Your task to perform on an android device: toggle airplane mode Image 0: 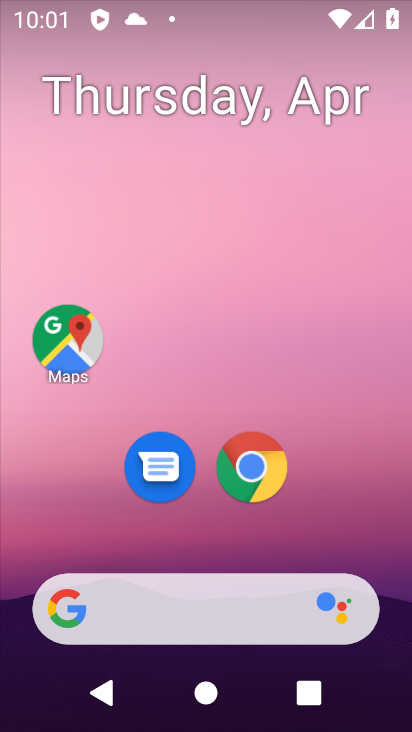
Step 0: drag from (332, 478) to (300, 124)
Your task to perform on an android device: toggle airplane mode Image 1: 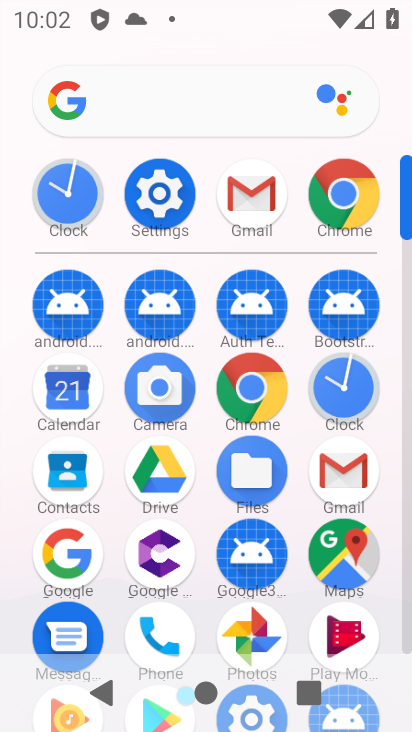
Step 1: click (152, 192)
Your task to perform on an android device: toggle airplane mode Image 2: 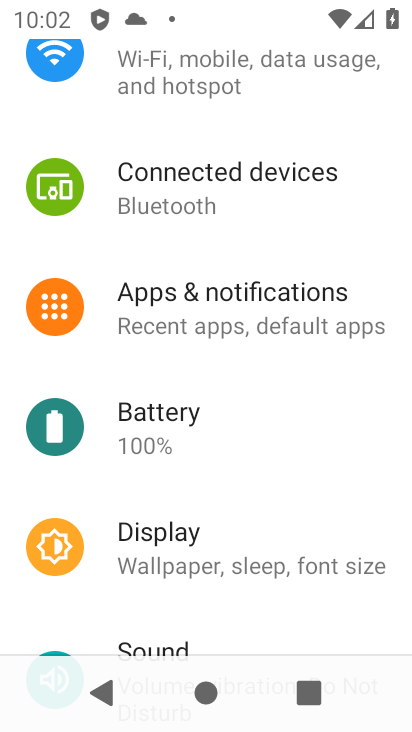
Step 2: click (238, 94)
Your task to perform on an android device: toggle airplane mode Image 3: 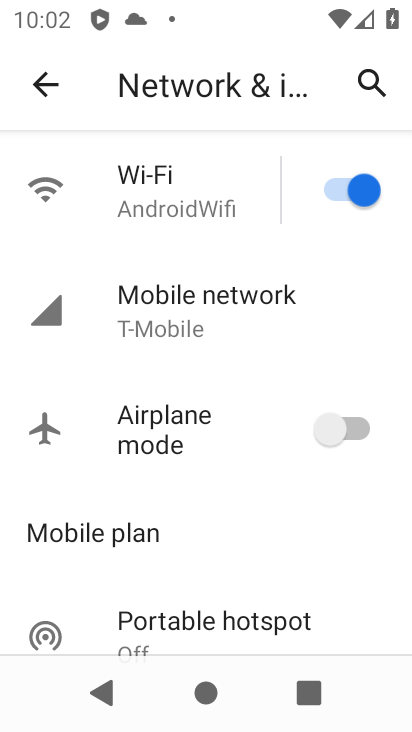
Step 3: click (257, 419)
Your task to perform on an android device: toggle airplane mode Image 4: 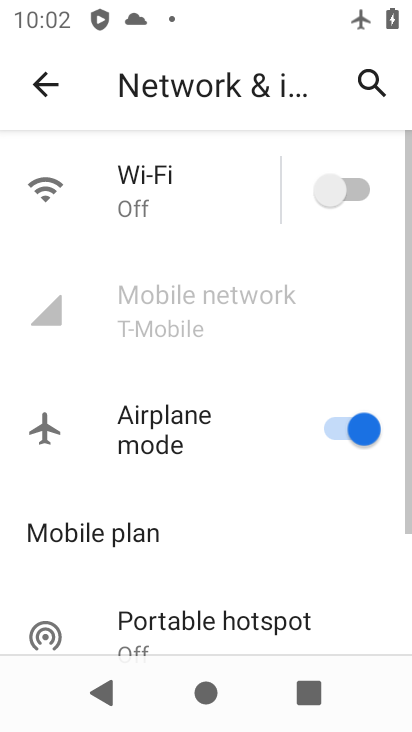
Step 4: task complete